Your task to perform on an android device: turn off improve location accuracy Image 0: 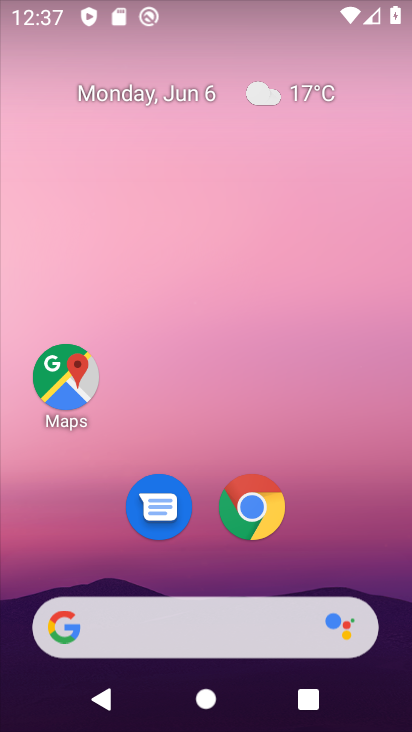
Step 0: drag from (220, 406) to (217, 3)
Your task to perform on an android device: turn off improve location accuracy Image 1: 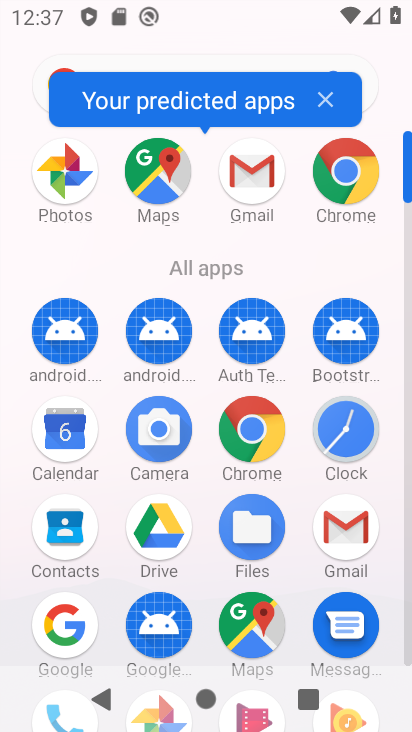
Step 1: drag from (204, 384) to (196, 138)
Your task to perform on an android device: turn off improve location accuracy Image 2: 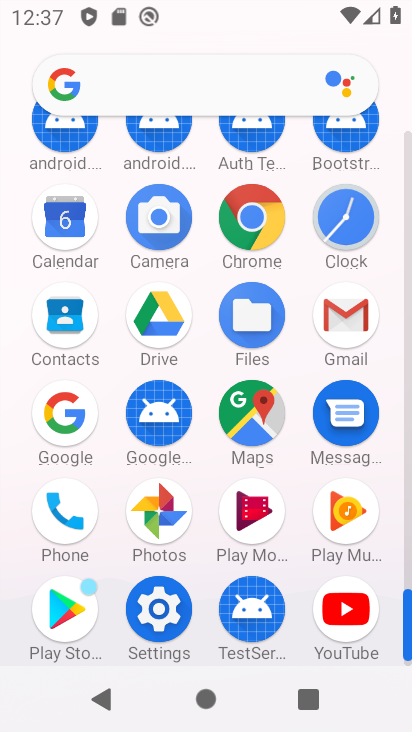
Step 2: click (170, 602)
Your task to perform on an android device: turn off improve location accuracy Image 3: 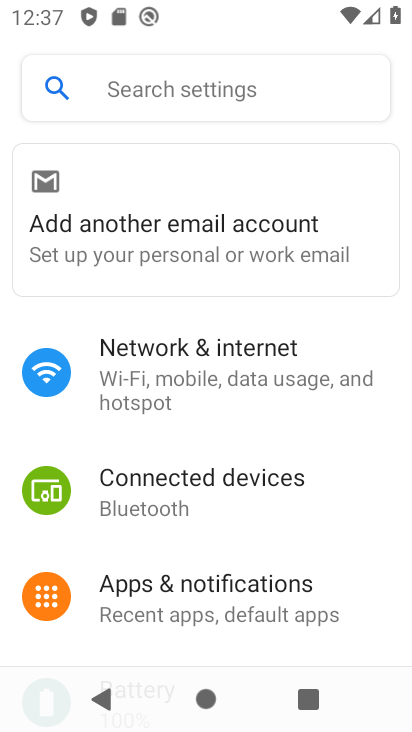
Step 3: drag from (239, 524) to (227, 79)
Your task to perform on an android device: turn off improve location accuracy Image 4: 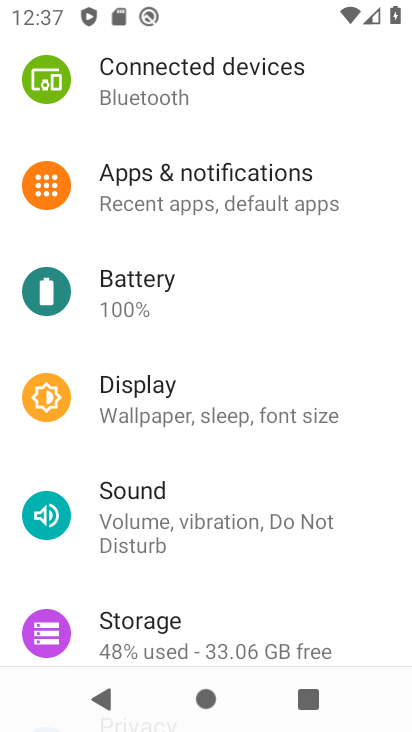
Step 4: drag from (200, 565) to (207, 76)
Your task to perform on an android device: turn off improve location accuracy Image 5: 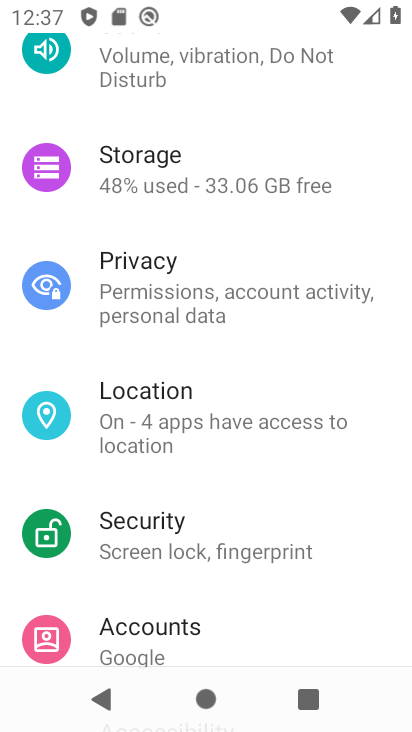
Step 5: click (190, 424)
Your task to perform on an android device: turn off improve location accuracy Image 6: 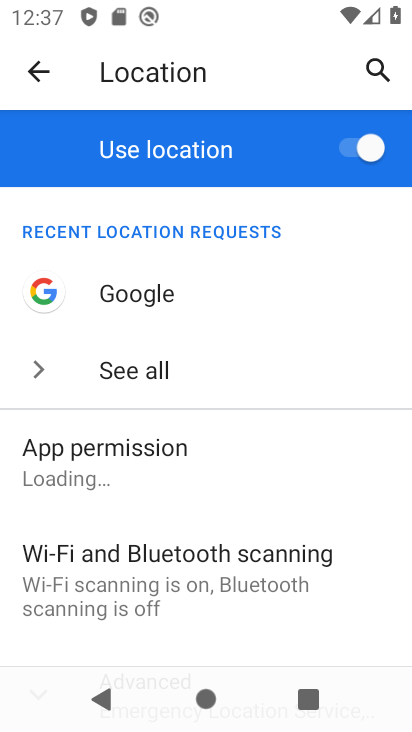
Step 6: drag from (227, 518) to (248, 108)
Your task to perform on an android device: turn off improve location accuracy Image 7: 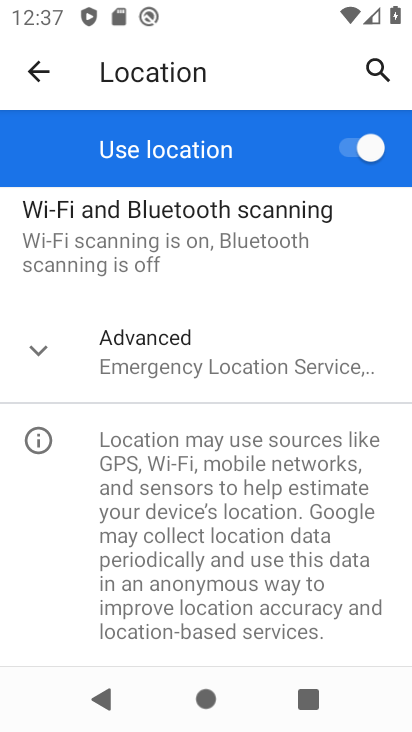
Step 7: click (39, 347)
Your task to perform on an android device: turn off improve location accuracy Image 8: 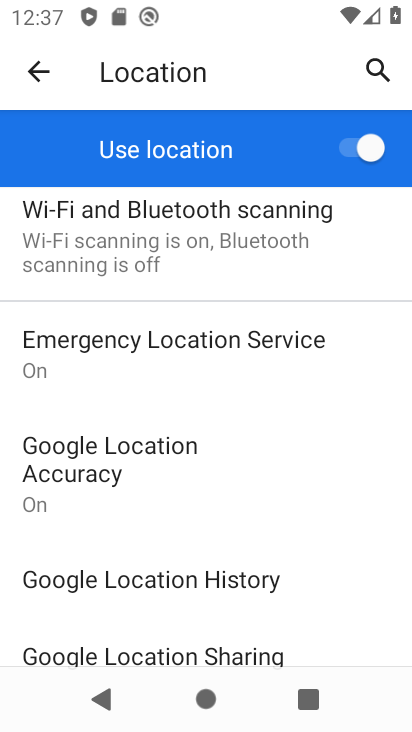
Step 8: click (163, 482)
Your task to perform on an android device: turn off improve location accuracy Image 9: 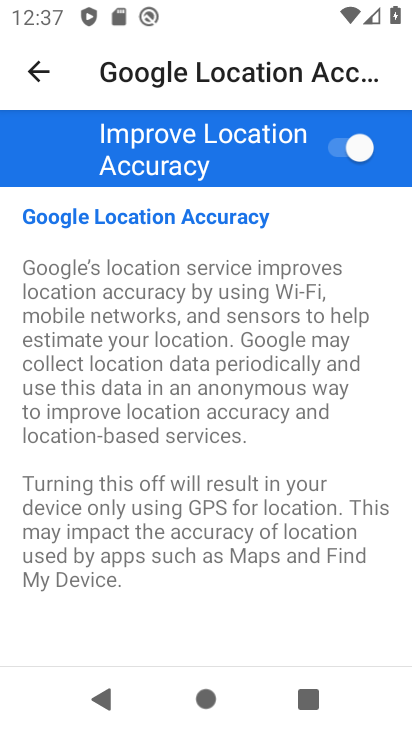
Step 9: click (350, 153)
Your task to perform on an android device: turn off improve location accuracy Image 10: 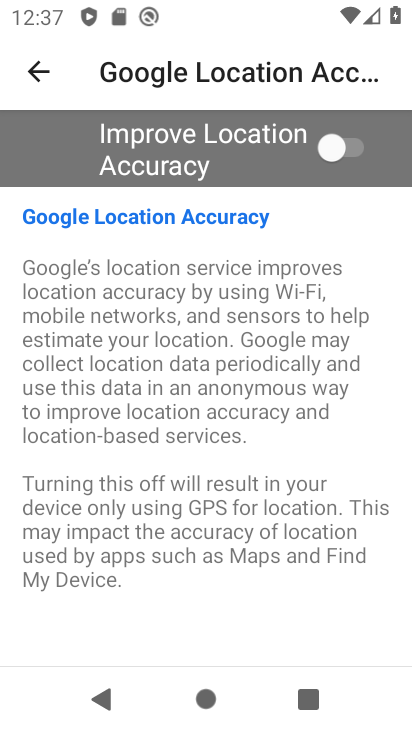
Step 10: task complete